Your task to perform on an android device: uninstall "WhatsApp Messenger" Image 0: 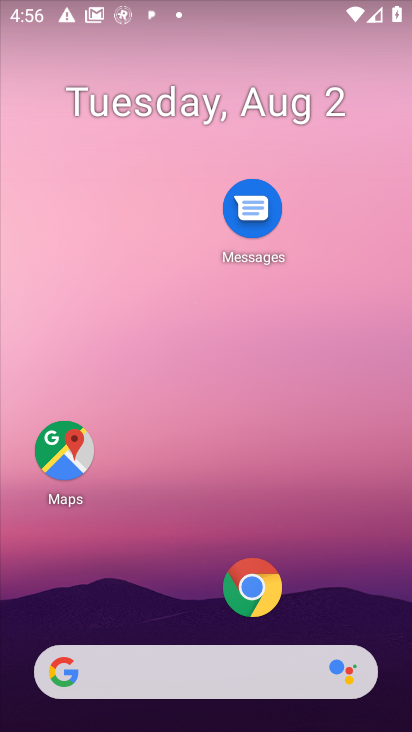
Step 0: drag from (155, 618) to (201, 143)
Your task to perform on an android device: uninstall "WhatsApp Messenger" Image 1: 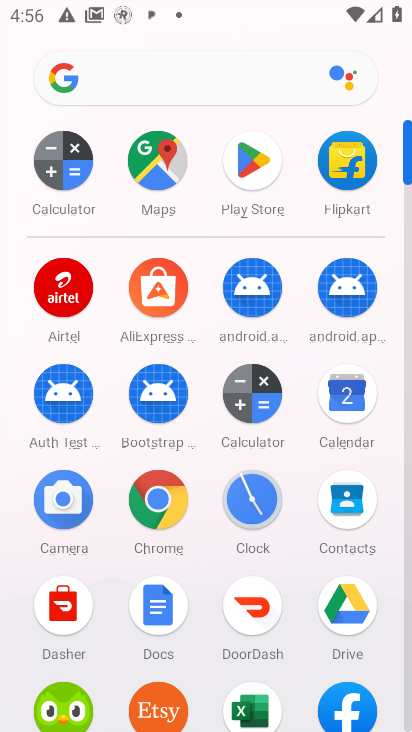
Step 1: click (238, 145)
Your task to perform on an android device: uninstall "WhatsApp Messenger" Image 2: 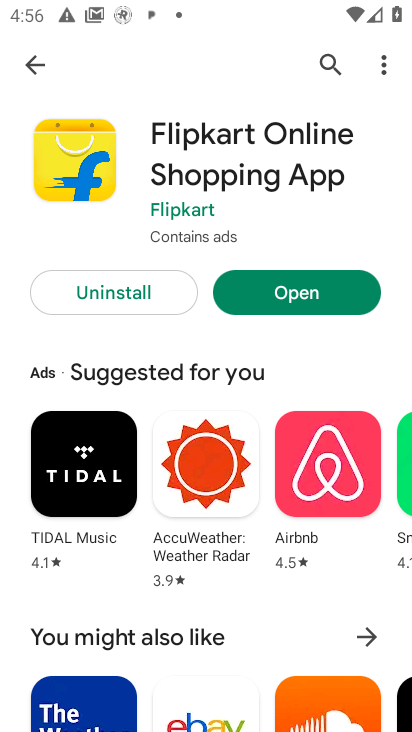
Step 2: click (321, 63)
Your task to perform on an android device: uninstall "WhatsApp Messenger" Image 3: 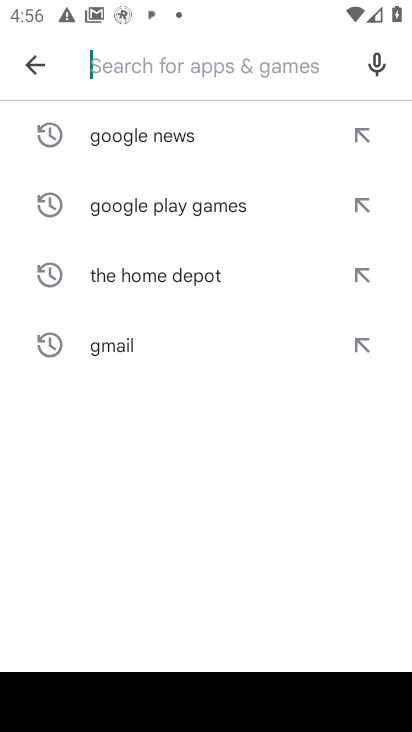
Step 3: type "WhatsApp Messenger"
Your task to perform on an android device: uninstall "WhatsApp Messenger" Image 4: 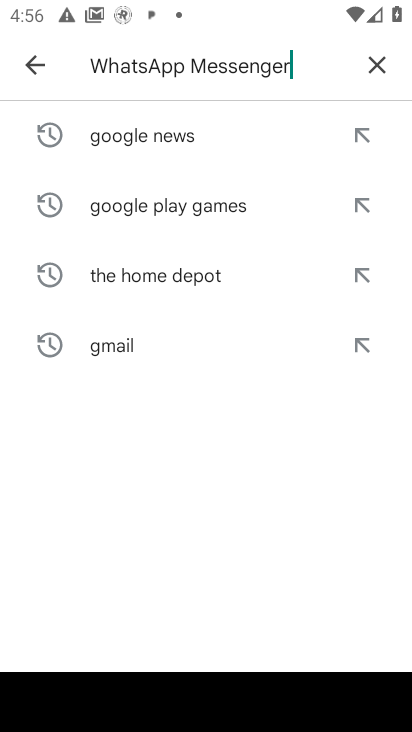
Step 4: type ""
Your task to perform on an android device: uninstall "WhatsApp Messenger" Image 5: 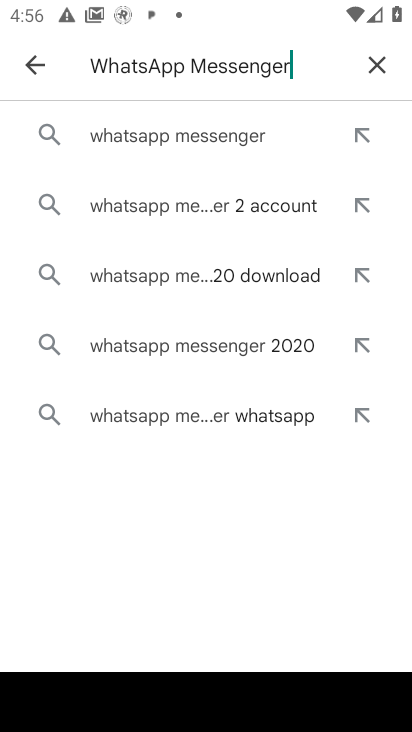
Step 5: click (189, 126)
Your task to perform on an android device: uninstall "WhatsApp Messenger" Image 6: 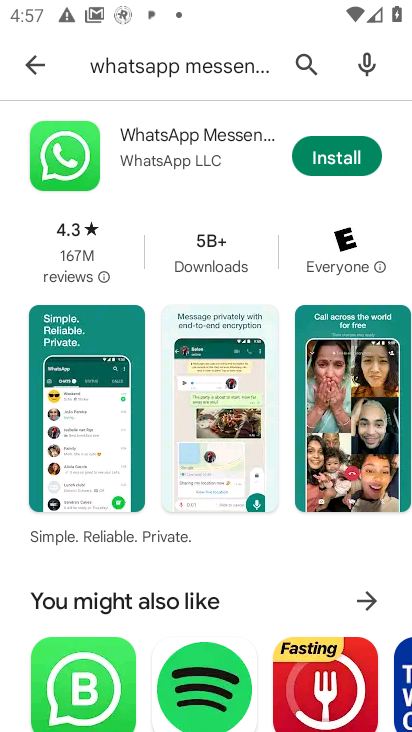
Step 6: click (183, 150)
Your task to perform on an android device: uninstall "WhatsApp Messenger" Image 7: 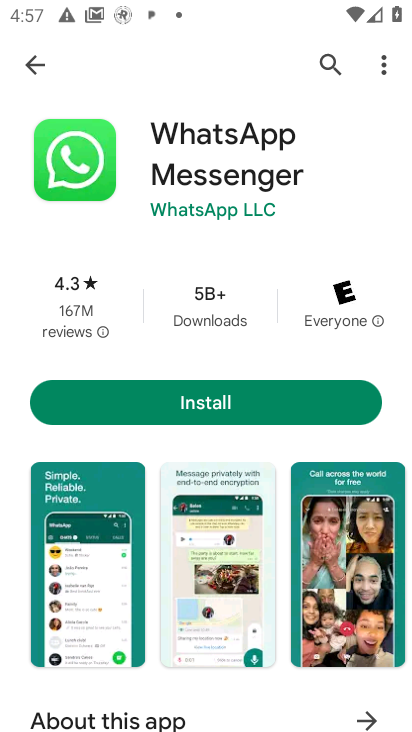
Step 7: task complete